Your task to perform on an android device: Open Chrome and go to settings Image 0: 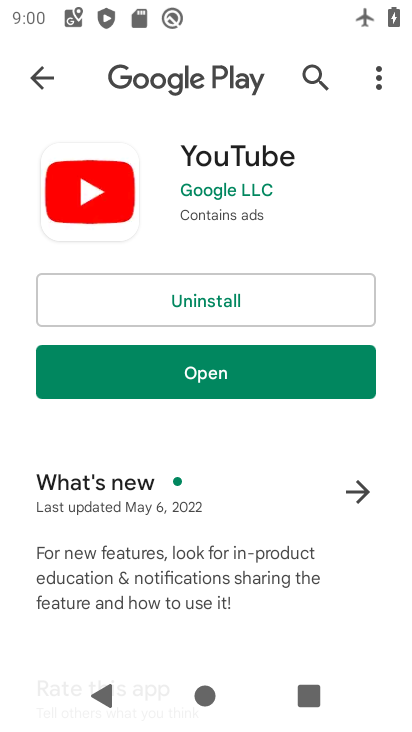
Step 0: press home button
Your task to perform on an android device: Open Chrome and go to settings Image 1: 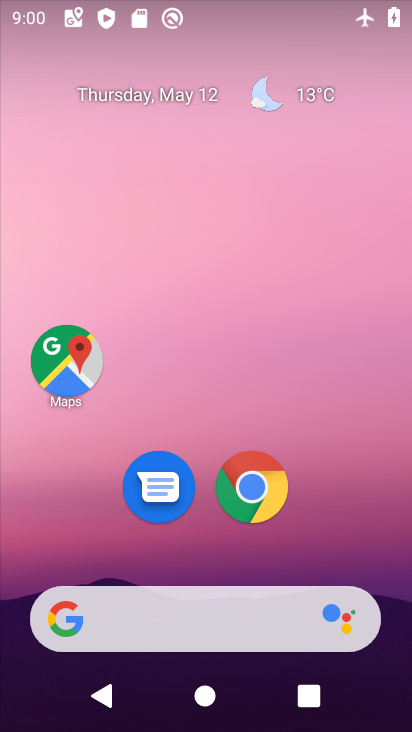
Step 1: click (260, 494)
Your task to perform on an android device: Open Chrome and go to settings Image 2: 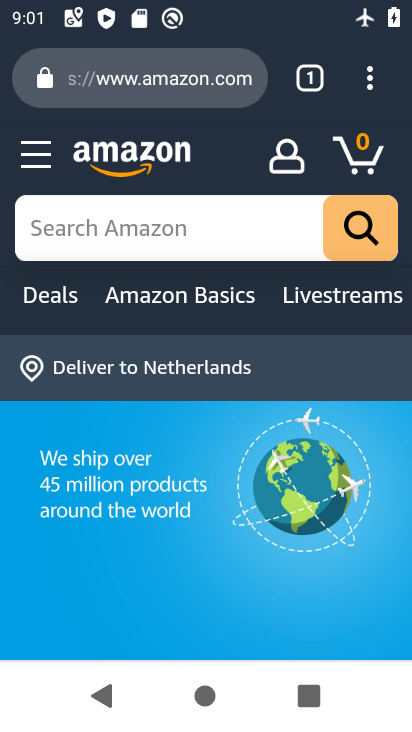
Step 2: click (375, 81)
Your task to perform on an android device: Open Chrome and go to settings Image 3: 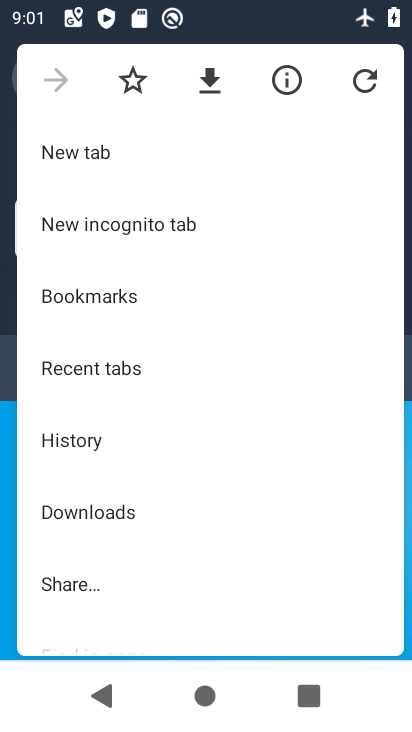
Step 3: drag from (190, 570) to (198, 136)
Your task to perform on an android device: Open Chrome and go to settings Image 4: 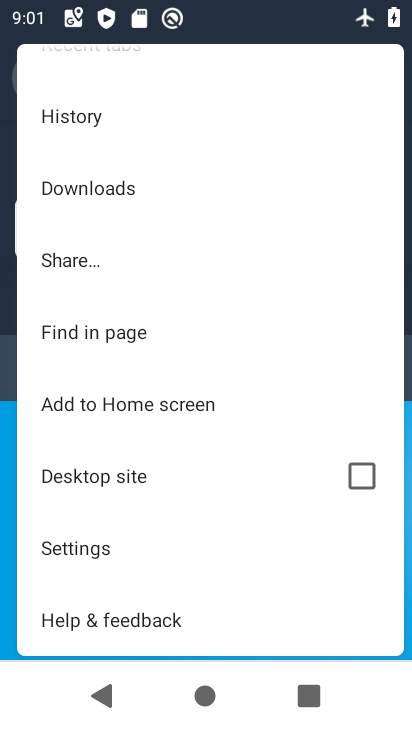
Step 4: click (68, 554)
Your task to perform on an android device: Open Chrome and go to settings Image 5: 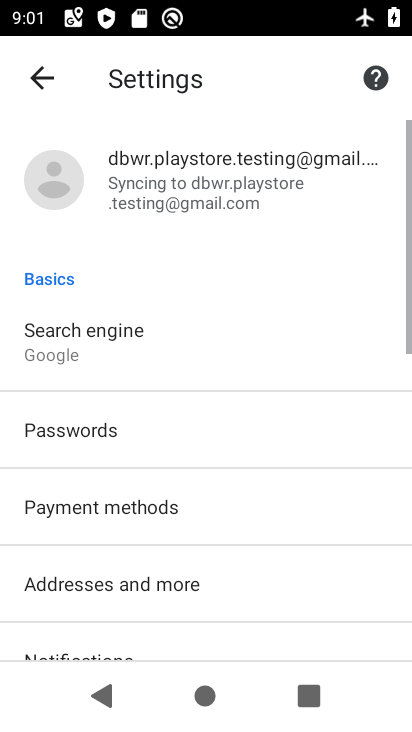
Step 5: task complete